Your task to perform on an android device: turn pop-ups on in chrome Image 0: 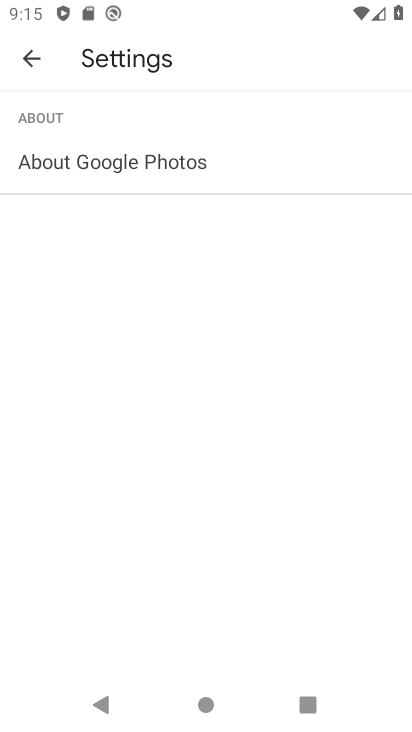
Step 0: press home button
Your task to perform on an android device: turn pop-ups on in chrome Image 1: 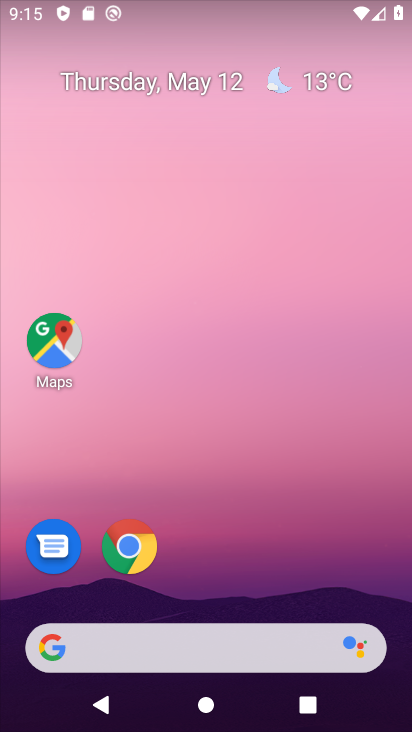
Step 1: click (116, 559)
Your task to perform on an android device: turn pop-ups on in chrome Image 2: 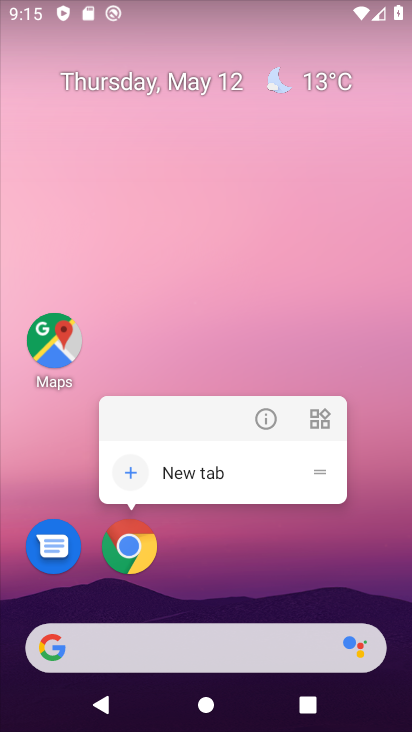
Step 2: click (128, 546)
Your task to perform on an android device: turn pop-ups on in chrome Image 3: 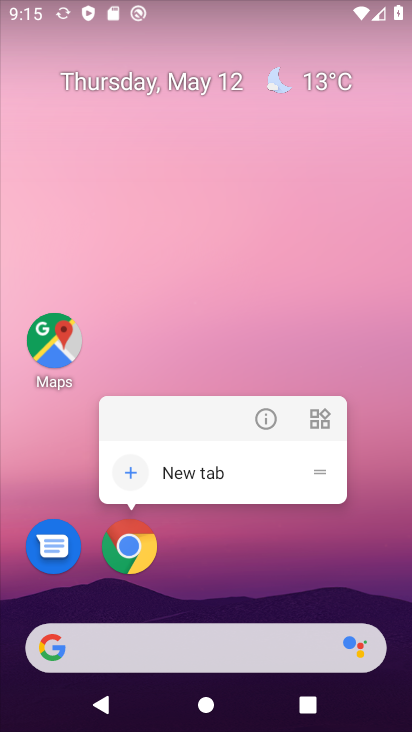
Step 3: click (128, 546)
Your task to perform on an android device: turn pop-ups on in chrome Image 4: 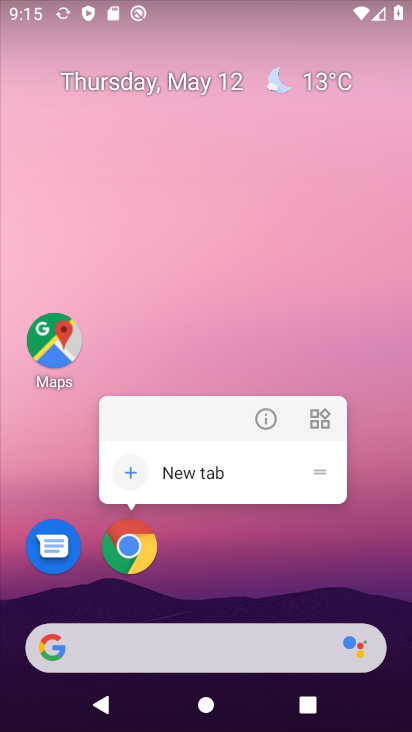
Step 4: click (126, 554)
Your task to perform on an android device: turn pop-ups on in chrome Image 5: 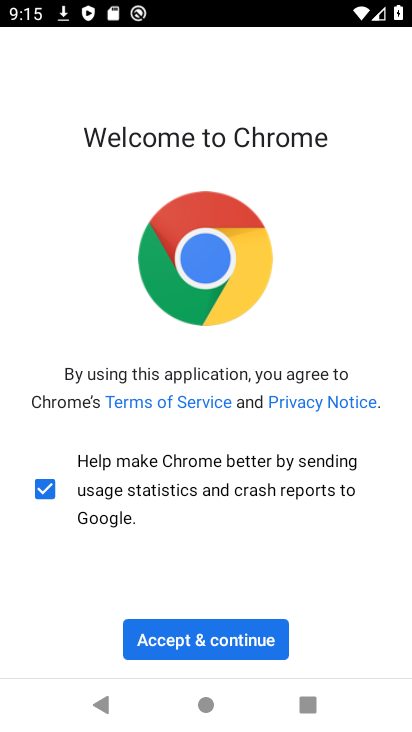
Step 5: click (250, 644)
Your task to perform on an android device: turn pop-ups on in chrome Image 6: 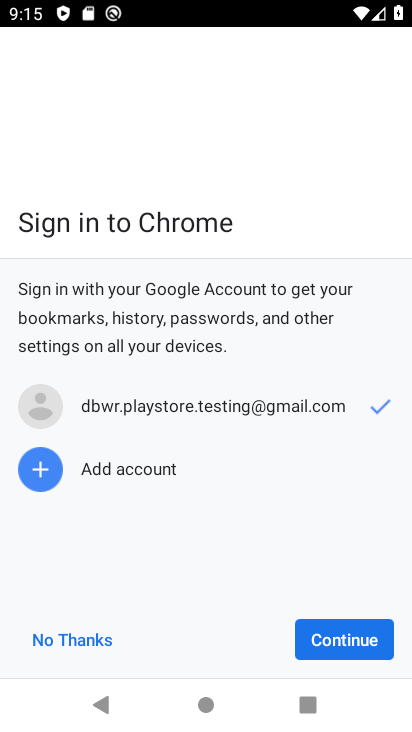
Step 6: click (296, 638)
Your task to perform on an android device: turn pop-ups on in chrome Image 7: 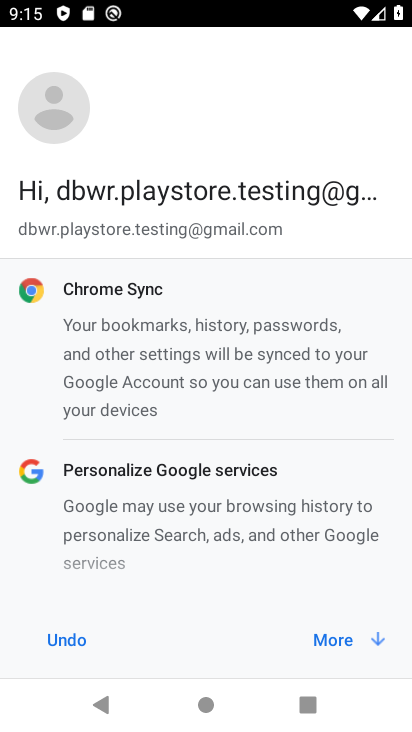
Step 7: click (330, 645)
Your task to perform on an android device: turn pop-ups on in chrome Image 8: 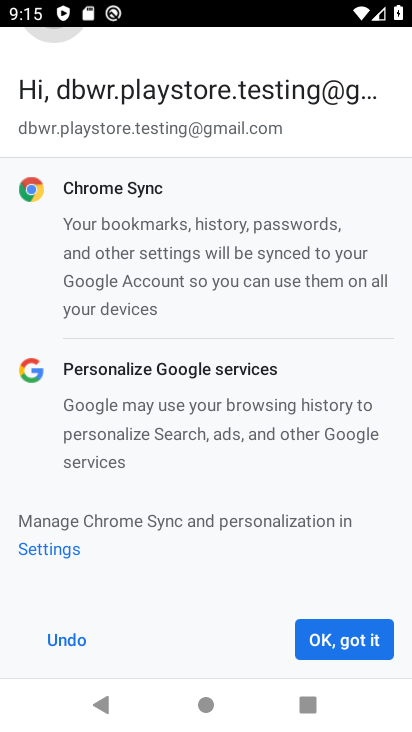
Step 8: click (330, 645)
Your task to perform on an android device: turn pop-ups on in chrome Image 9: 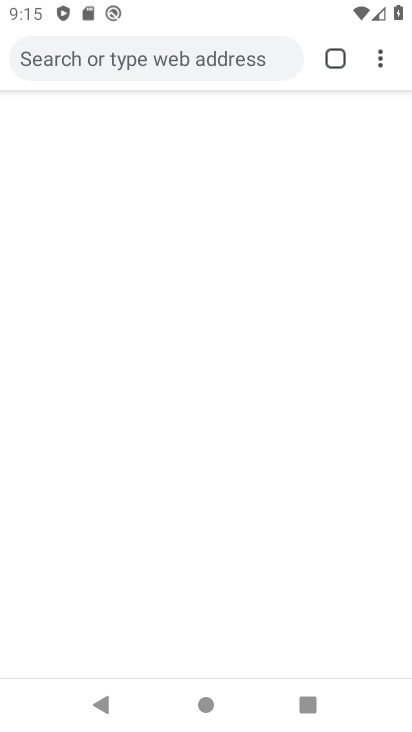
Step 9: click (383, 69)
Your task to perform on an android device: turn pop-ups on in chrome Image 10: 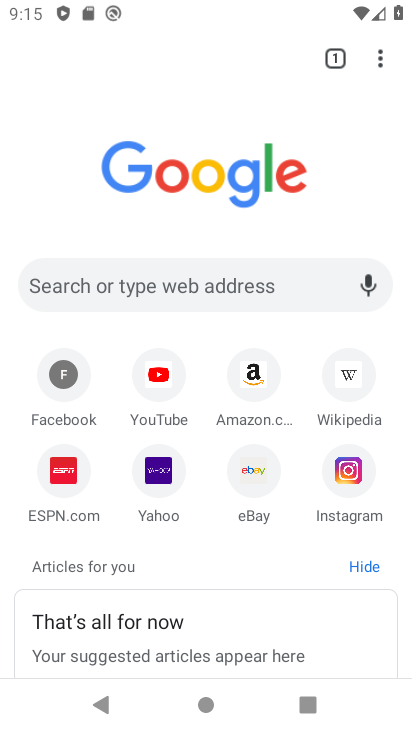
Step 10: drag from (383, 69) to (293, 480)
Your task to perform on an android device: turn pop-ups on in chrome Image 11: 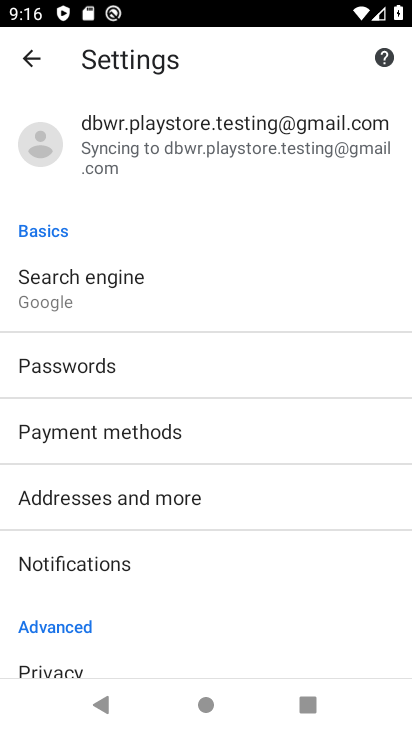
Step 11: drag from (86, 614) to (206, 282)
Your task to perform on an android device: turn pop-ups on in chrome Image 12: 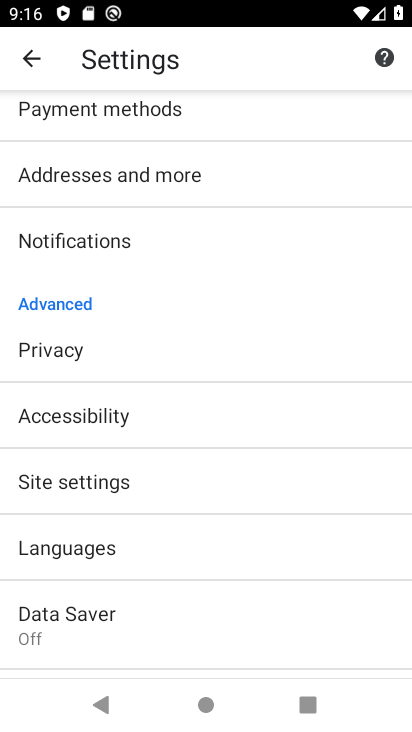
Step 12: click (144, 479)
Your task to perform on an android device: turn pop-ups on in chrome Image 13: 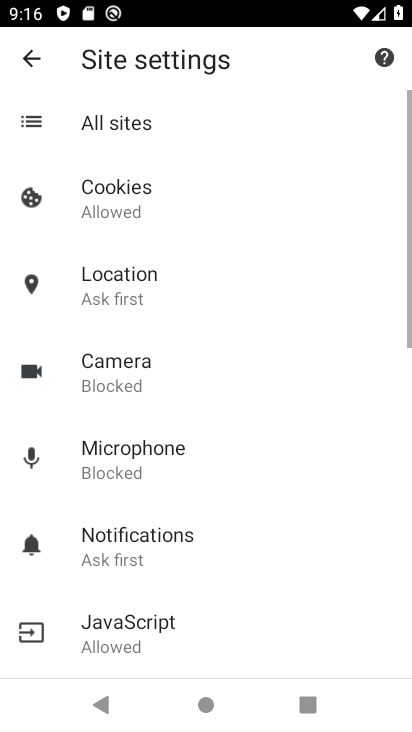
Step 13: drag from (192, 619) to (257, 386)
Your task to perform on an android device: turn pop-ups on in chrome Image 14: 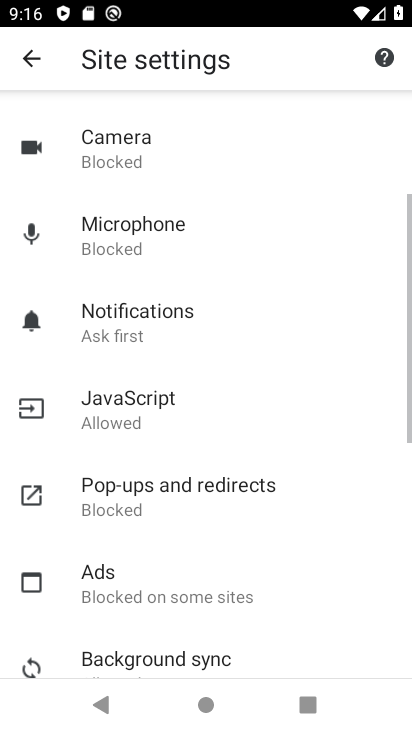
Step 14: click (227, 513)
Your task to perform on an android device: turn pop-ups on in chrome Image 15: 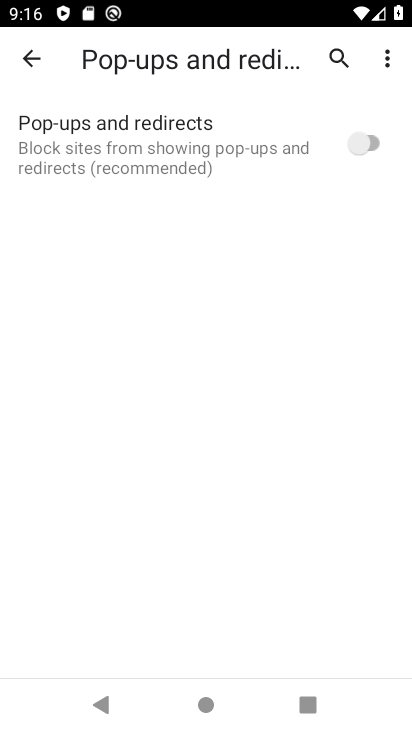
Step 15: click (381, 136)
Your task to perform on an android device: turn pop-ups on in chrome Image 16: 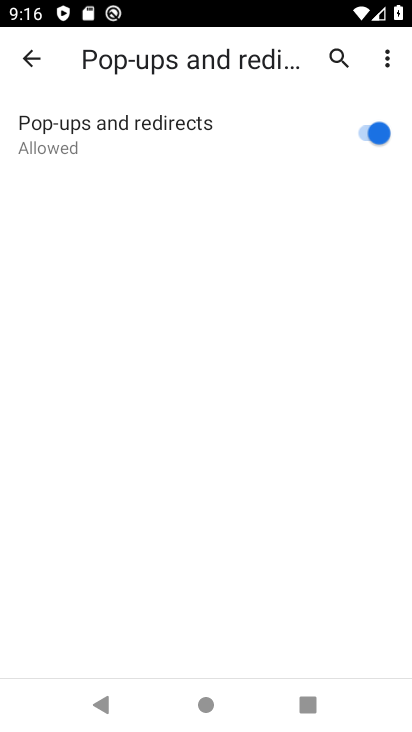
Step 16: task complete